Your task to perform on an android device: Go to display settings Image 0: 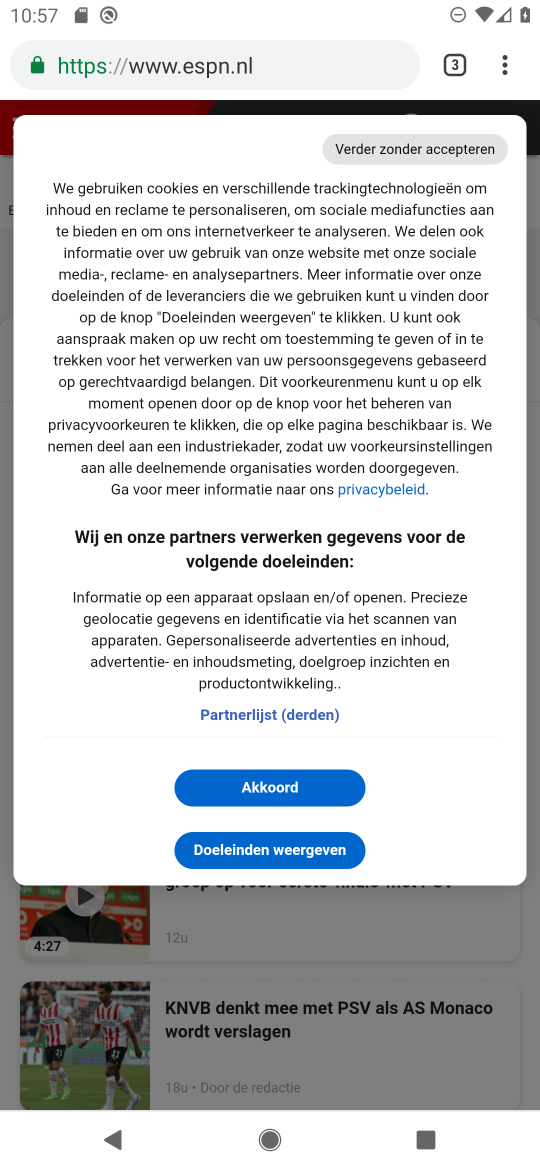
Step 0: press home button
Your task to perform on an android device: Go to display settings Image 1: 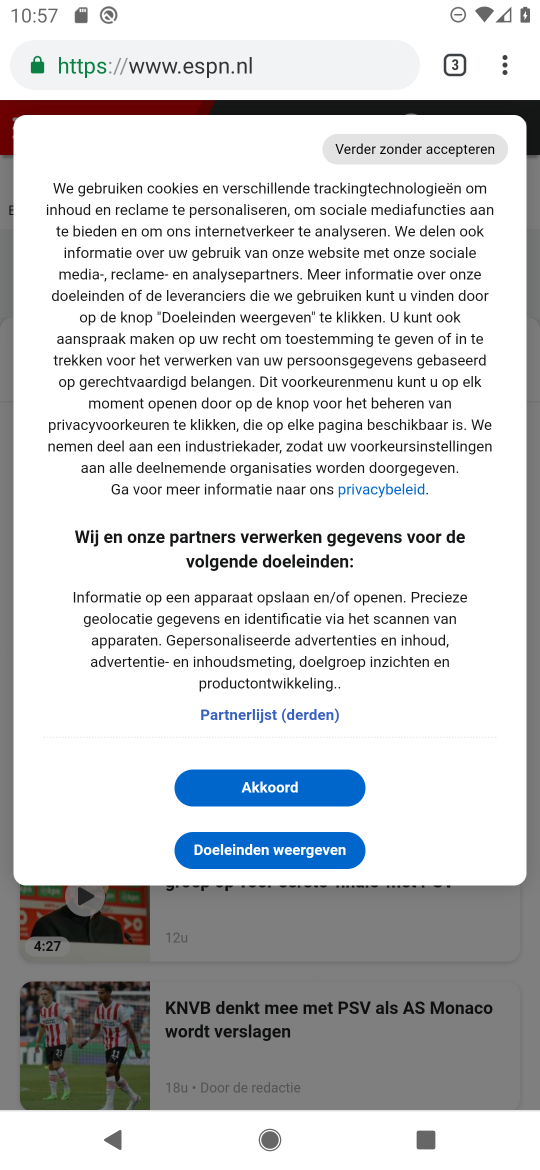
Step 1: press home button
Your task to perform on an android device: Go to display settings Image 2: 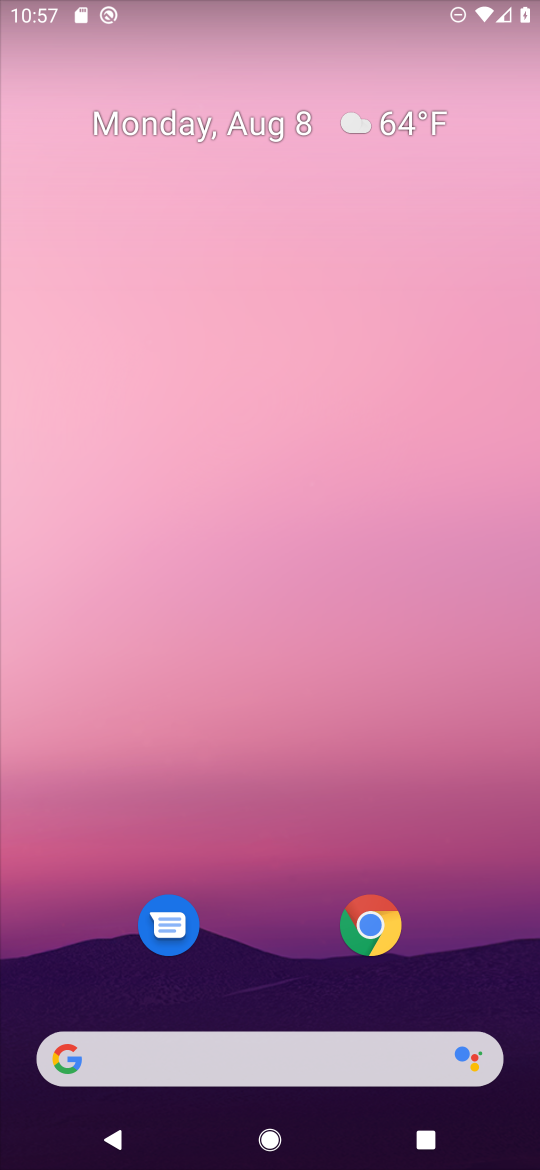
Step 2: drag from (255, 937) to (351, 178)
Your task to perform on an android device: Go to display settings Image 3: 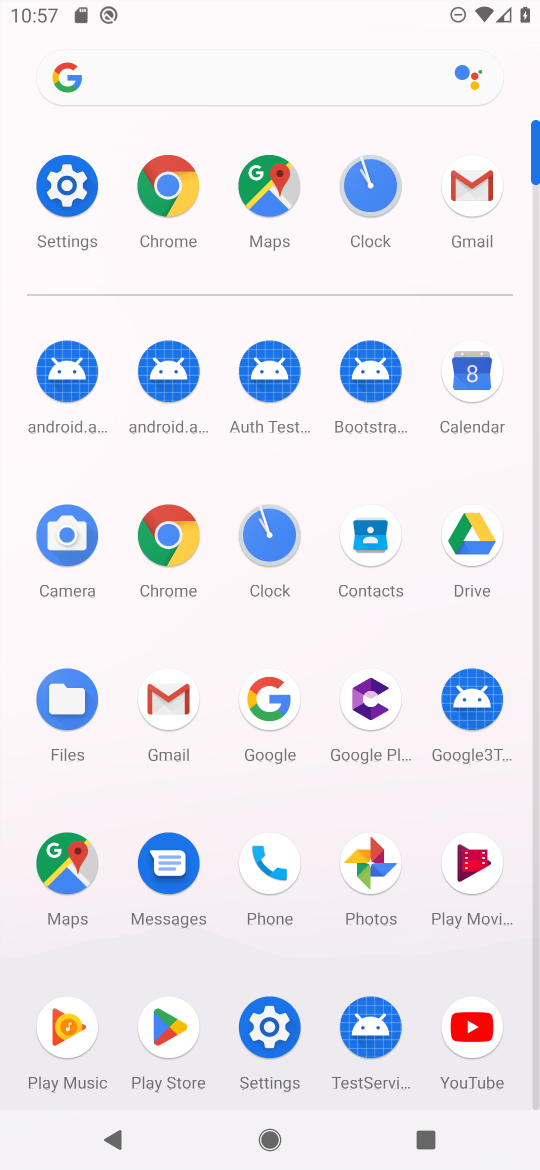
Step 3: click (274, 1026)
Your task to perform on an android device: Go to display settings Image 4: 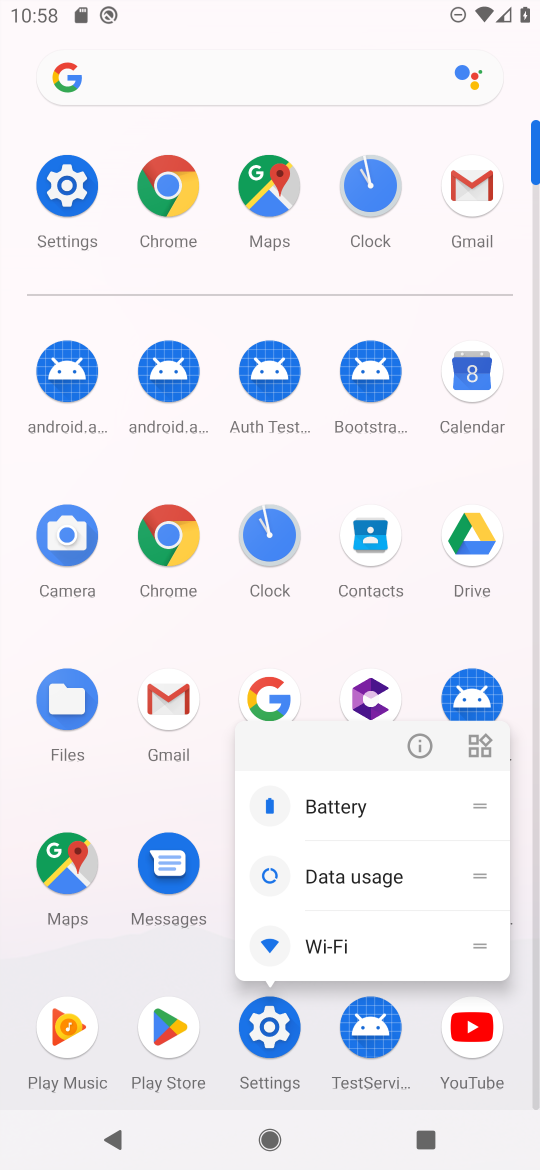
Step 4: click (269, 1030)
Your task to perform on an android device: Go to display settings Image 5: 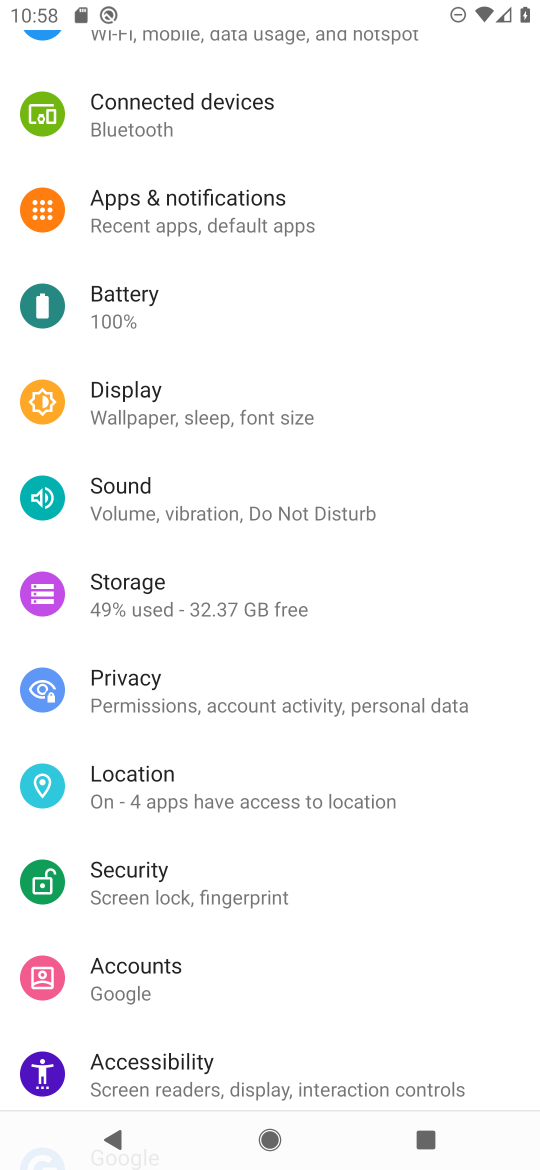
Step 5: click (199, 399)
Your task to perform on an android device: Go to display settings Image 6: 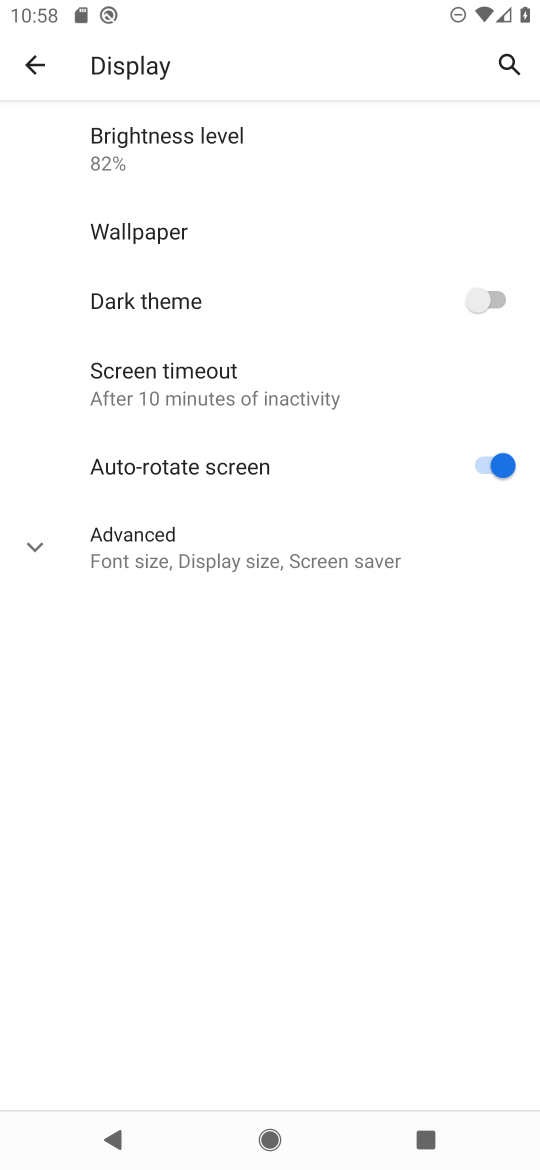
Step 6: task complete